Your task to perform on an android device: change notifications settings Image 0: 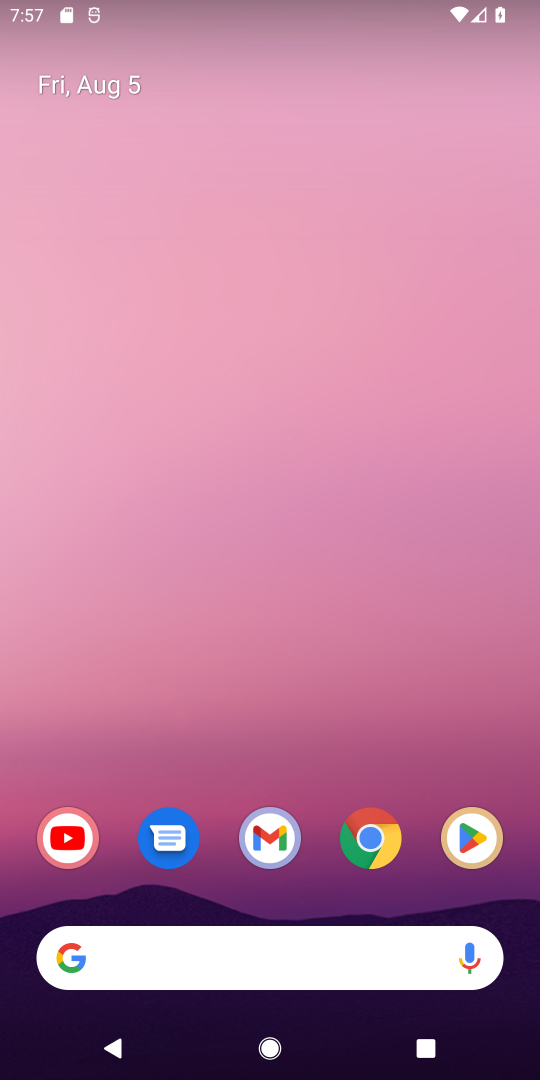
Step 0: drag from (266, 744) to (395, 0)
Your task to perform on an android device: change notifications settings Image 1: 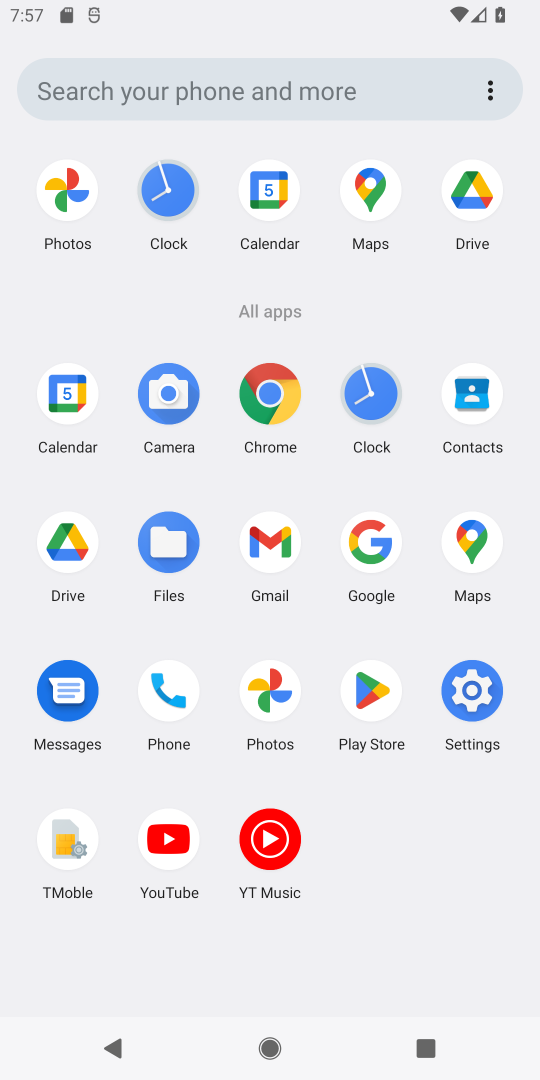
Step 1: click (479, 701)
Your task to perform on an android device: change notifications settings Image 2: 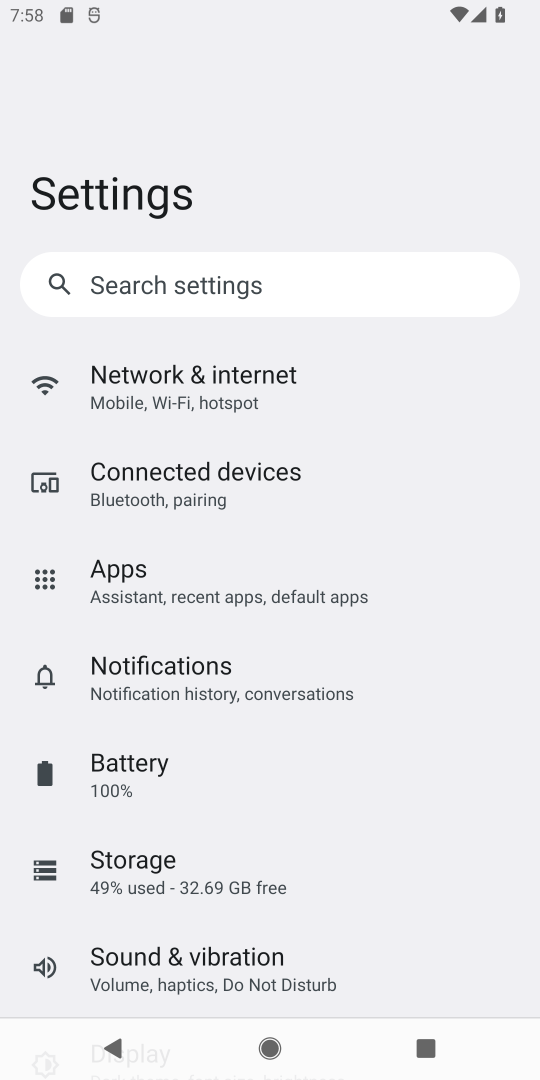
Step 2: click (176, 690)
Your task to perform on an android device: change notifications settings Image 3: 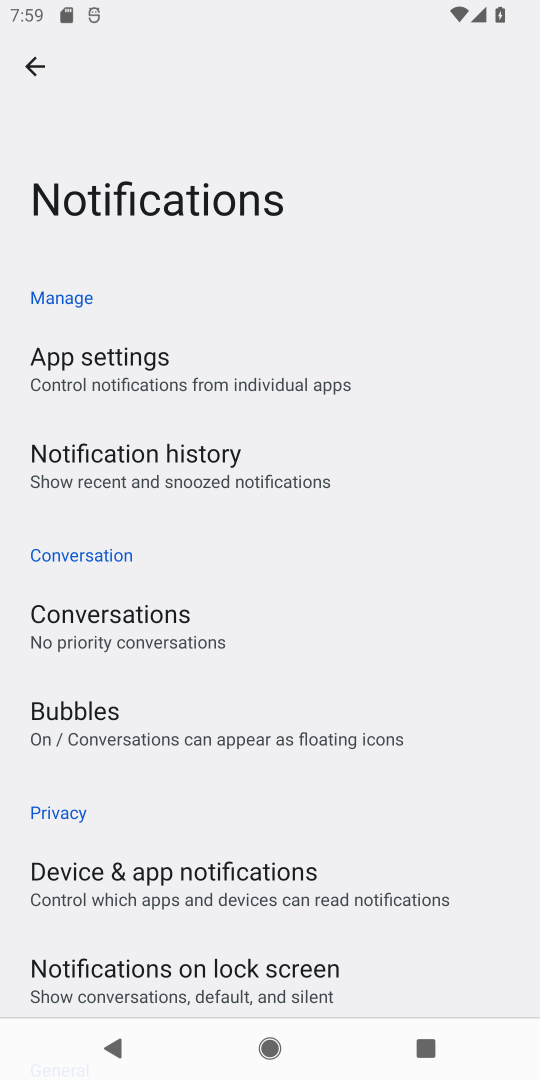
Step 3: click (225, 384)
Your task to perform on an android device: change notifications settings Image 4: 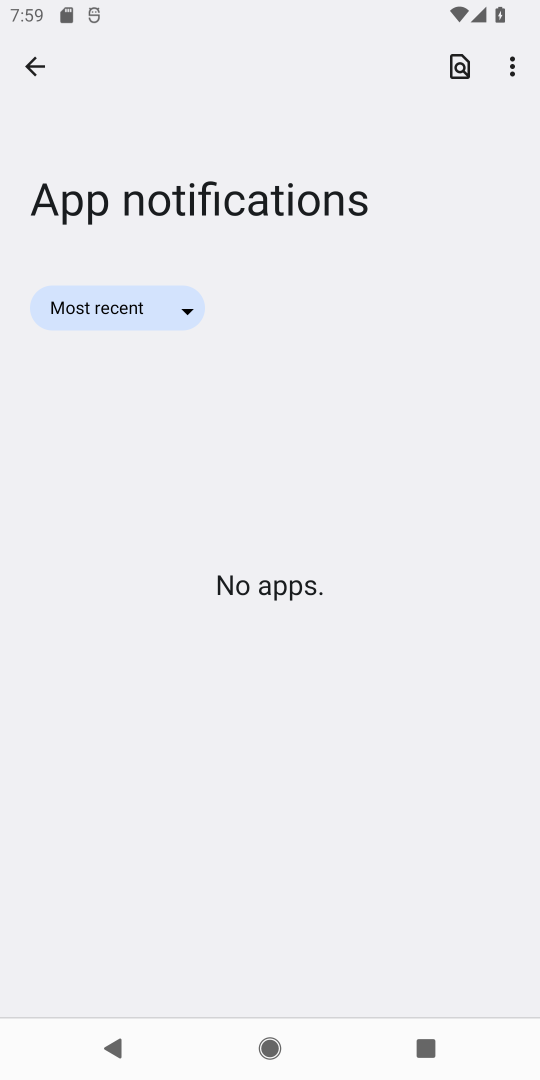
Step 4: click (31, 66)
Your task to perform on an android device: change notifications settings Image 5: 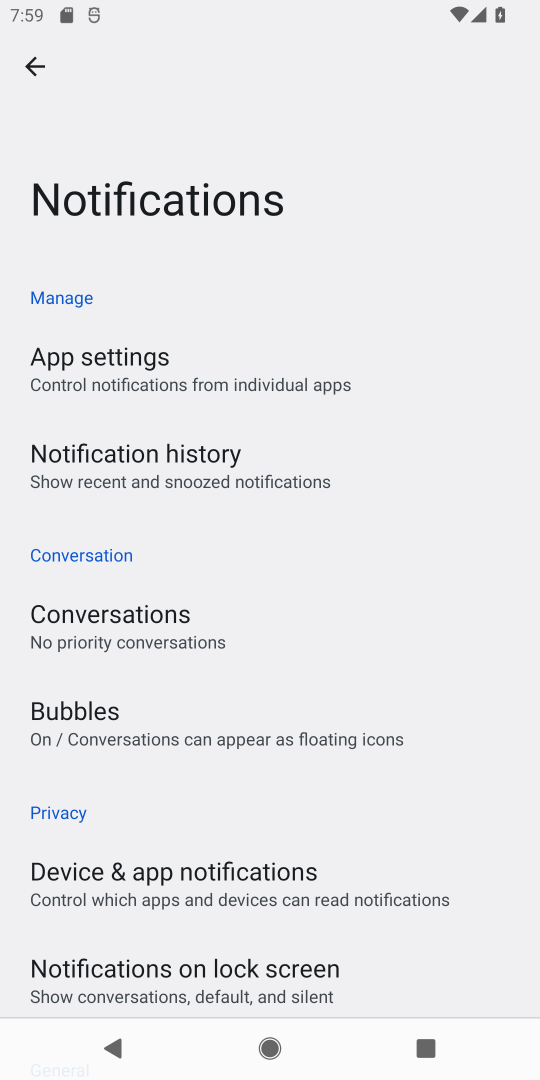
Step 5: click (286, 444)
Your task to perform on an android device: change notifications settings Image 6: 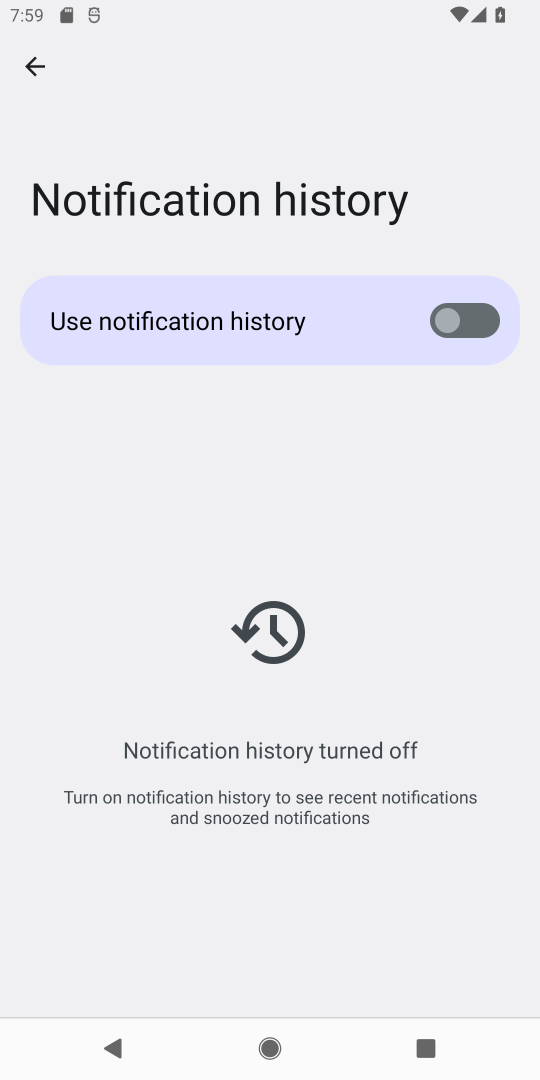
Step 6: click (476, 317)
Your task to perform on an android device: change notifications settings Image 7: 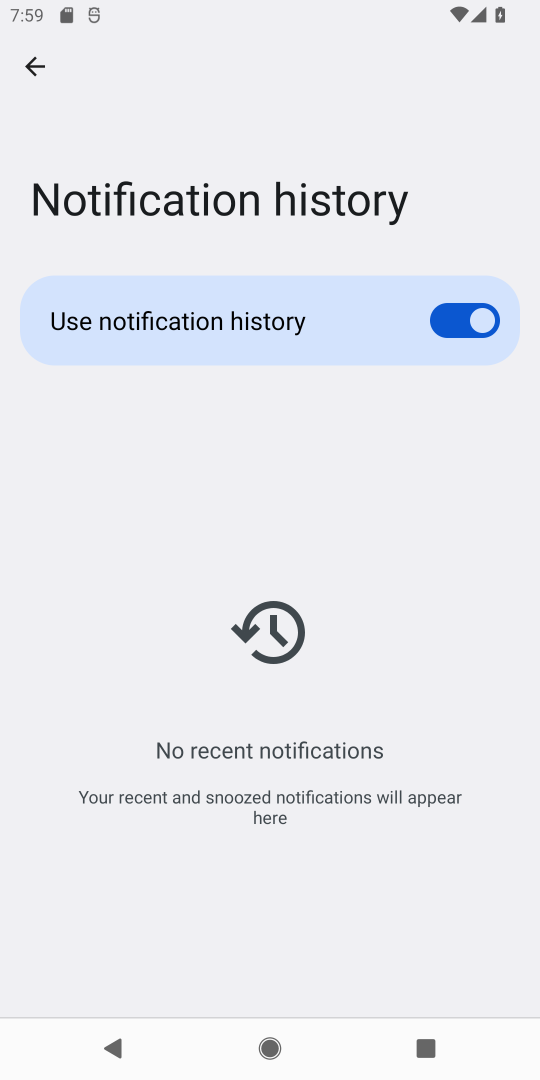
Step 7: click (31, 66)
Your task to perform on an android device: change notifications settings Image 8: 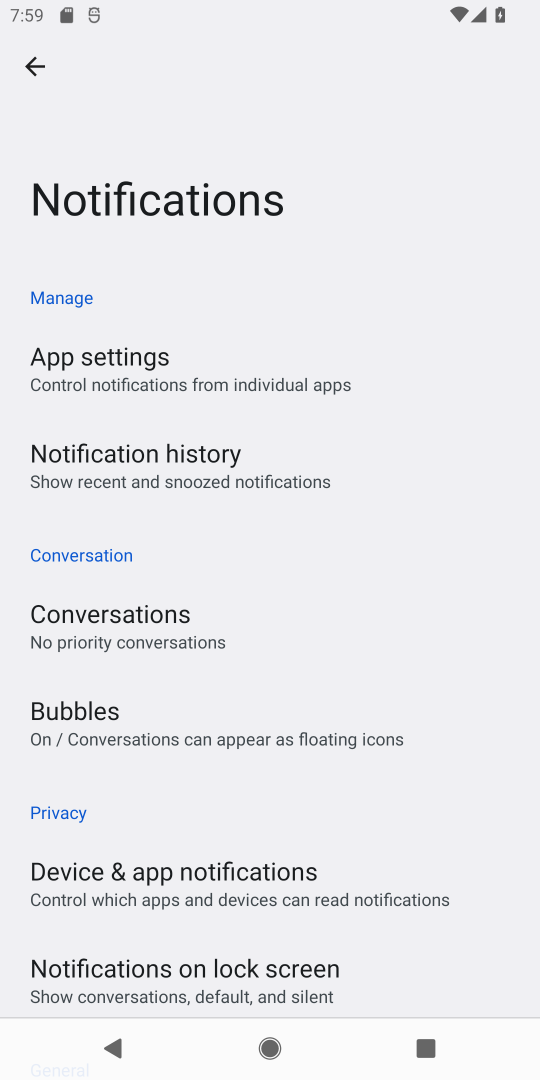
Step 8: task complete